Your task to perform on an android device: open a bookmark in the chrome app Image 0: 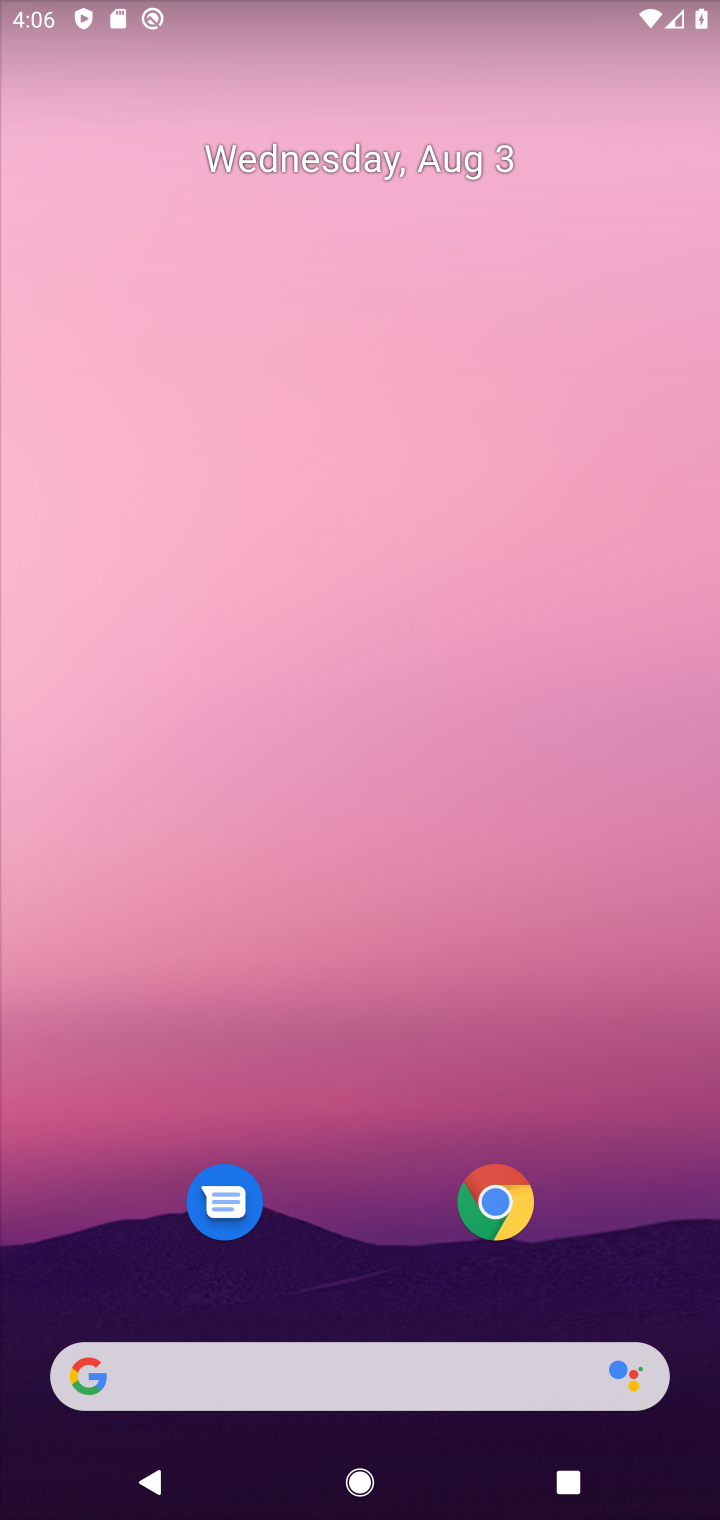
Step 0: click (491, 1175)
Your task to perform on an android device: open a bookmark in the chrome app Image 1: 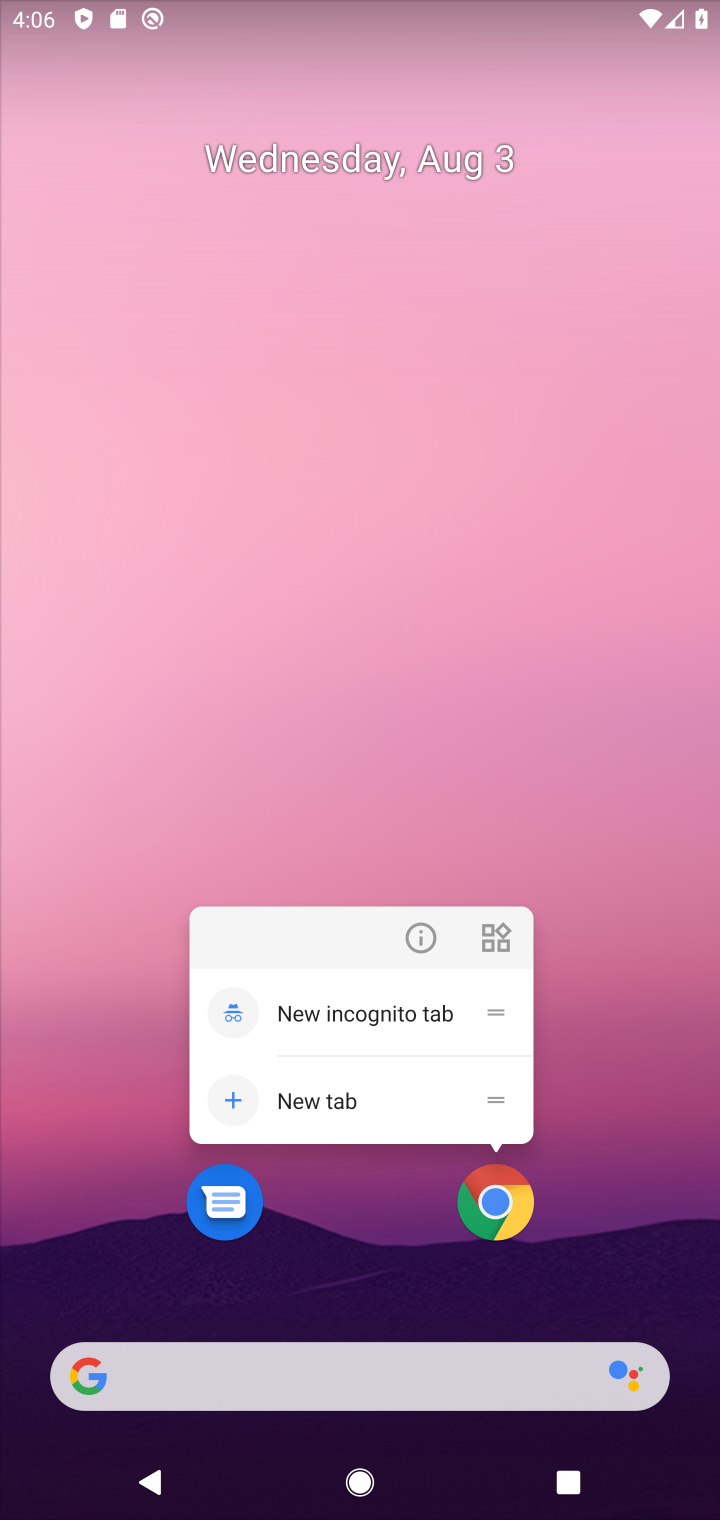
Step 1: click (504, 1184)
Your task to perform on an android device: open a bookmark in the chrome app Image 2: 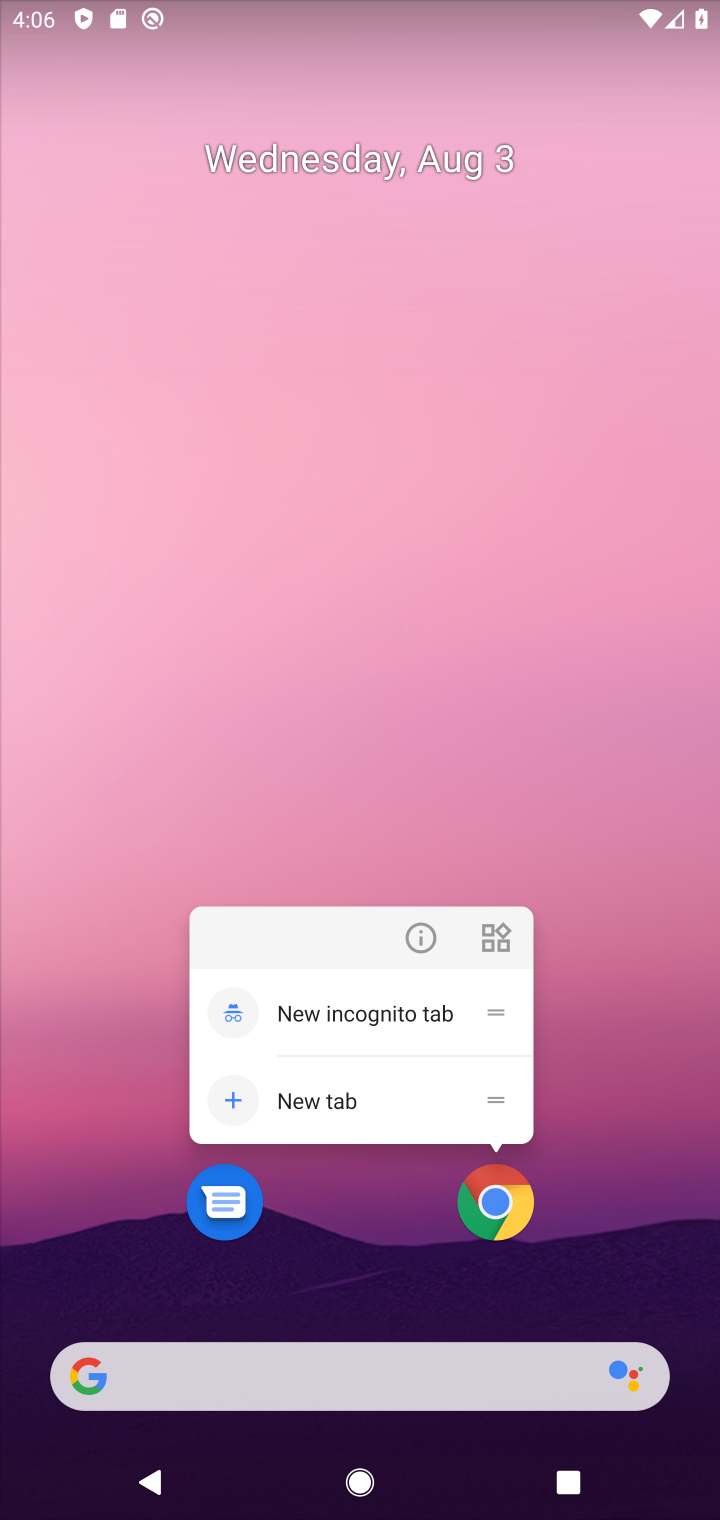
Step 2: click (498, 1207)
Your task to perform on an android device: open a bookmark in the chrome app Image 3: 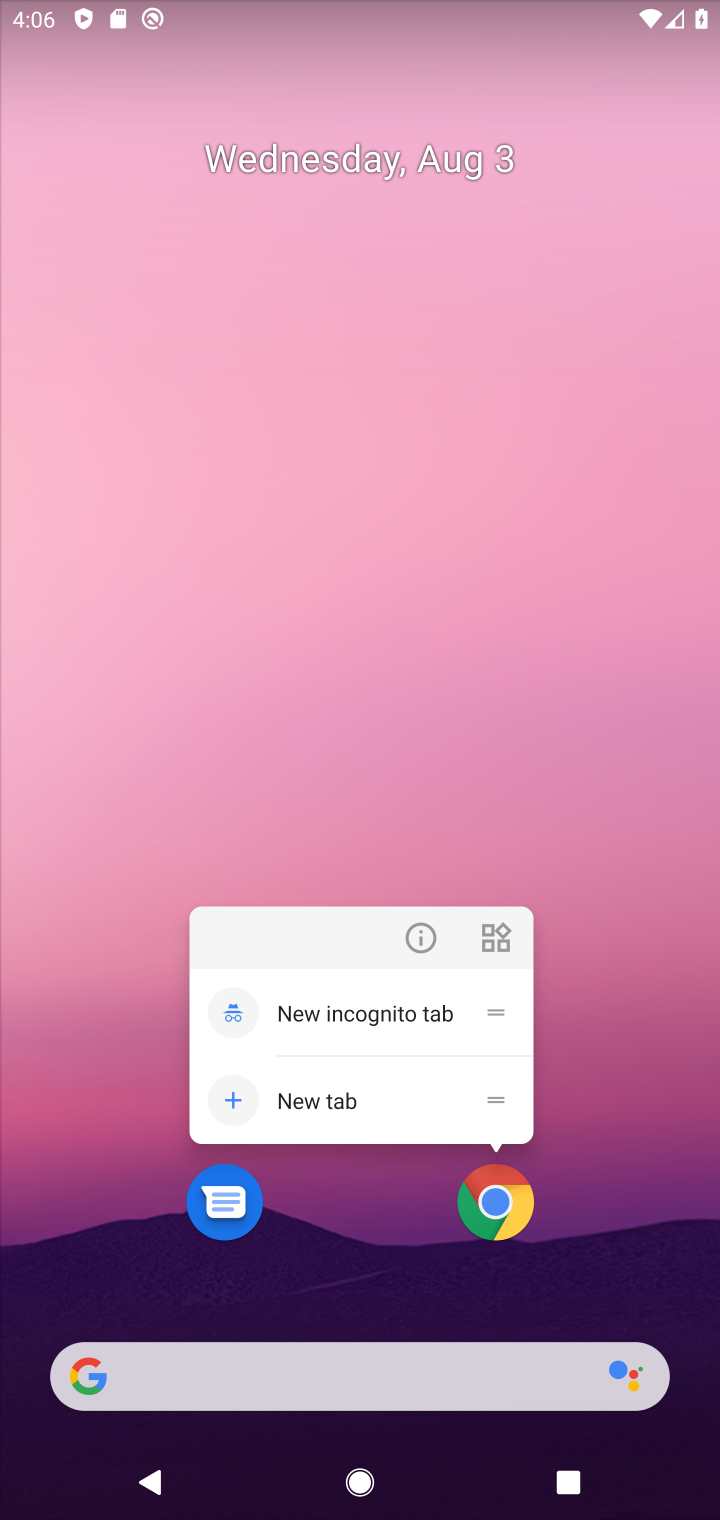
Step 3: click (509, 1204)
Your task to perform on an android device: open a bookmark in the chrome app Image 4: 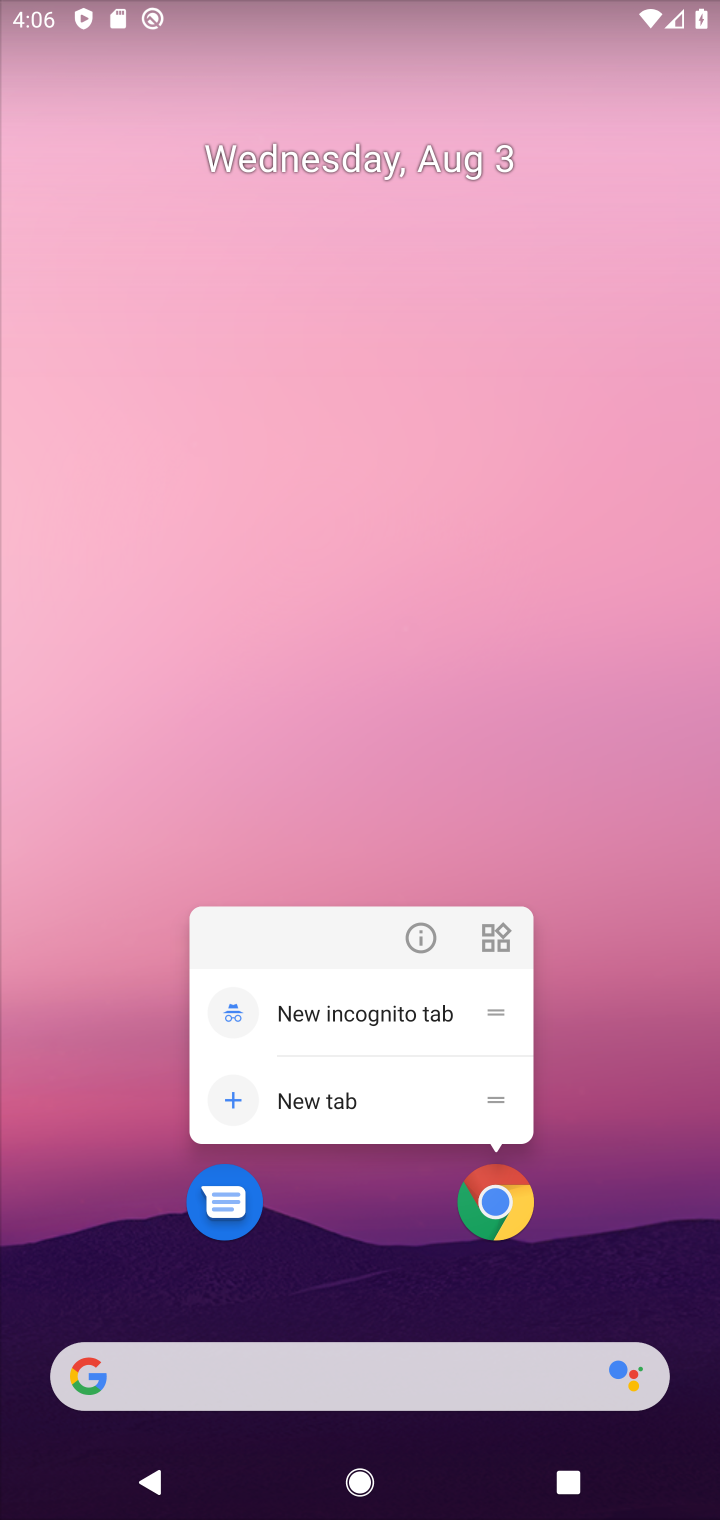
Step 4: click (499, 1189)
Your task to perform on an android device: open a bookmark in the chrome app Image 5: 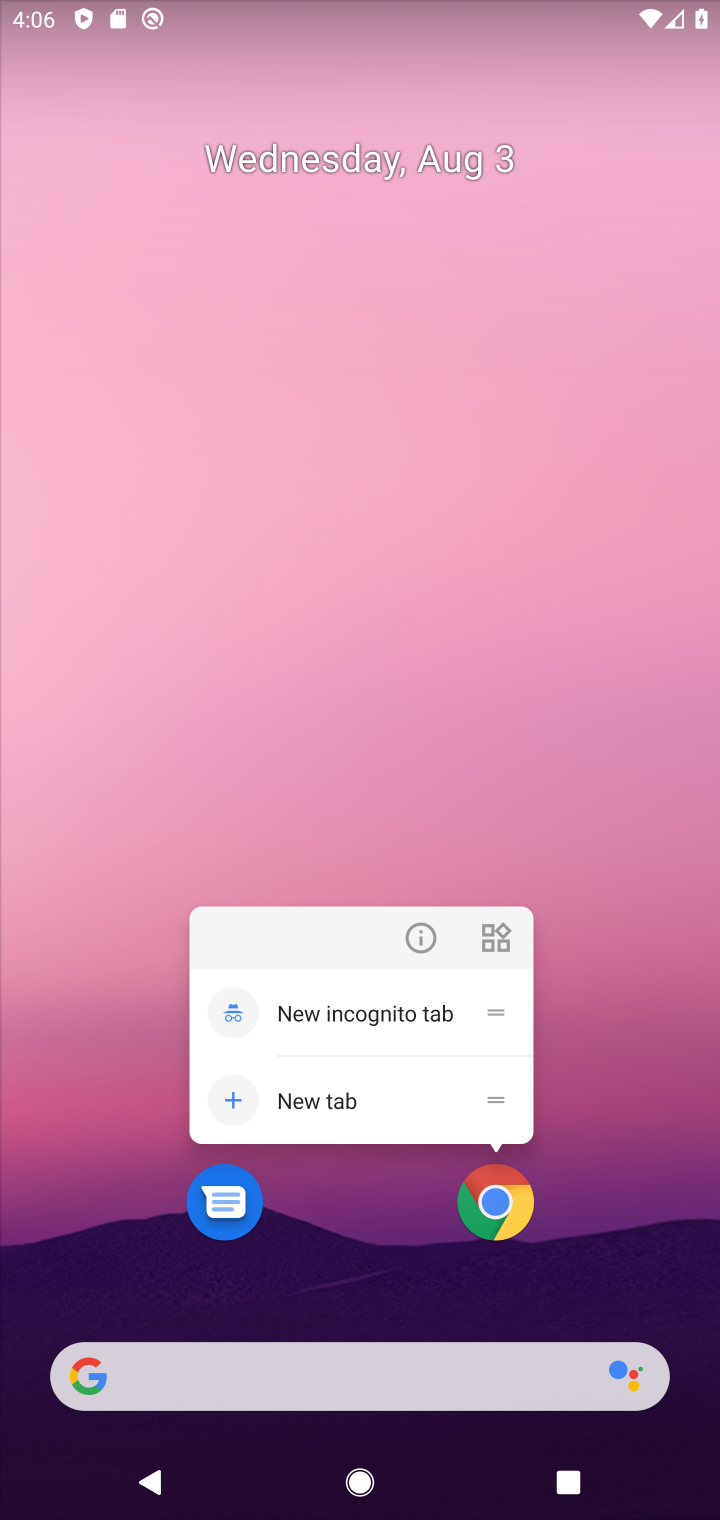
Step 5: click (523, 1189)
Your task to perform on an android device: open a bookmark in the chrome app Image 6: 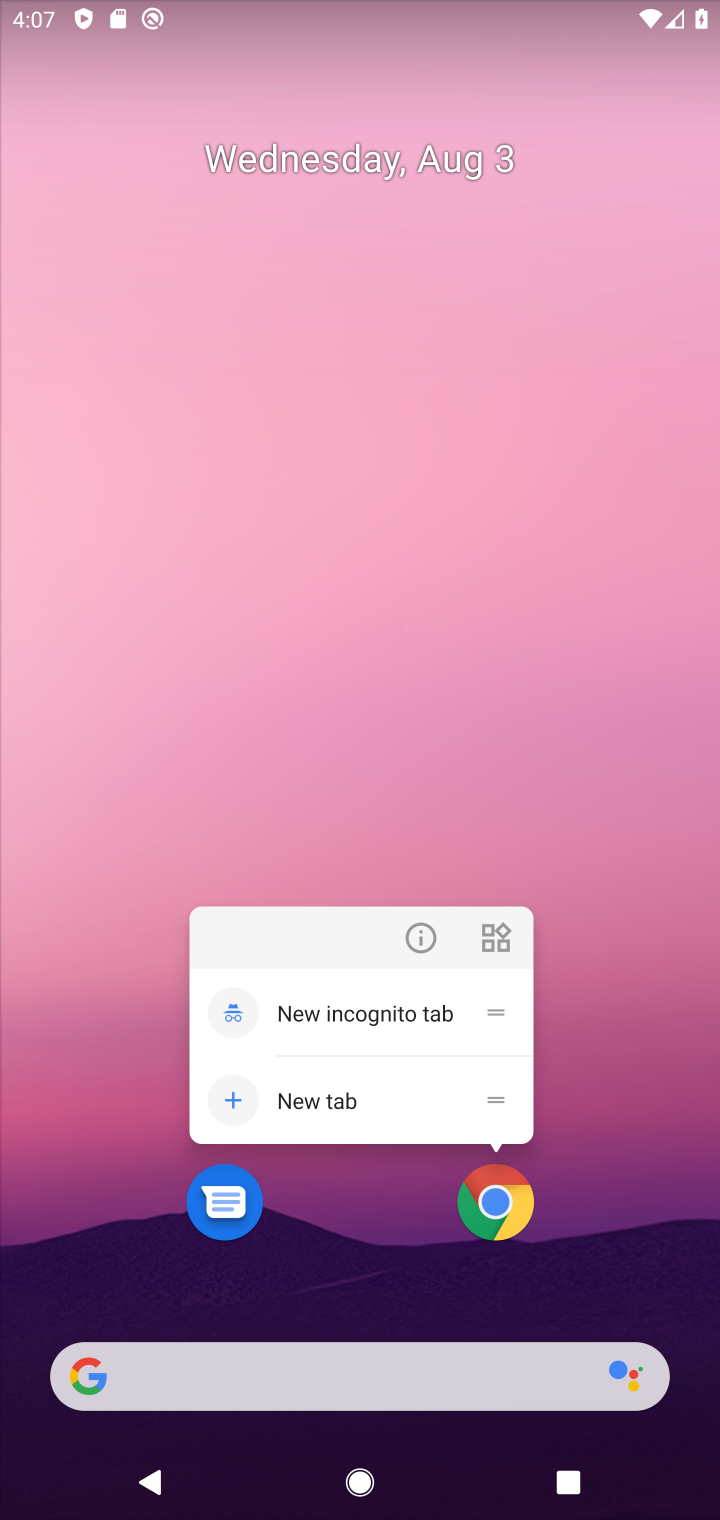
Step 6: click (508, 1199)
Your task to perform on an android device: open a bookmark in the chrome app Image 7: 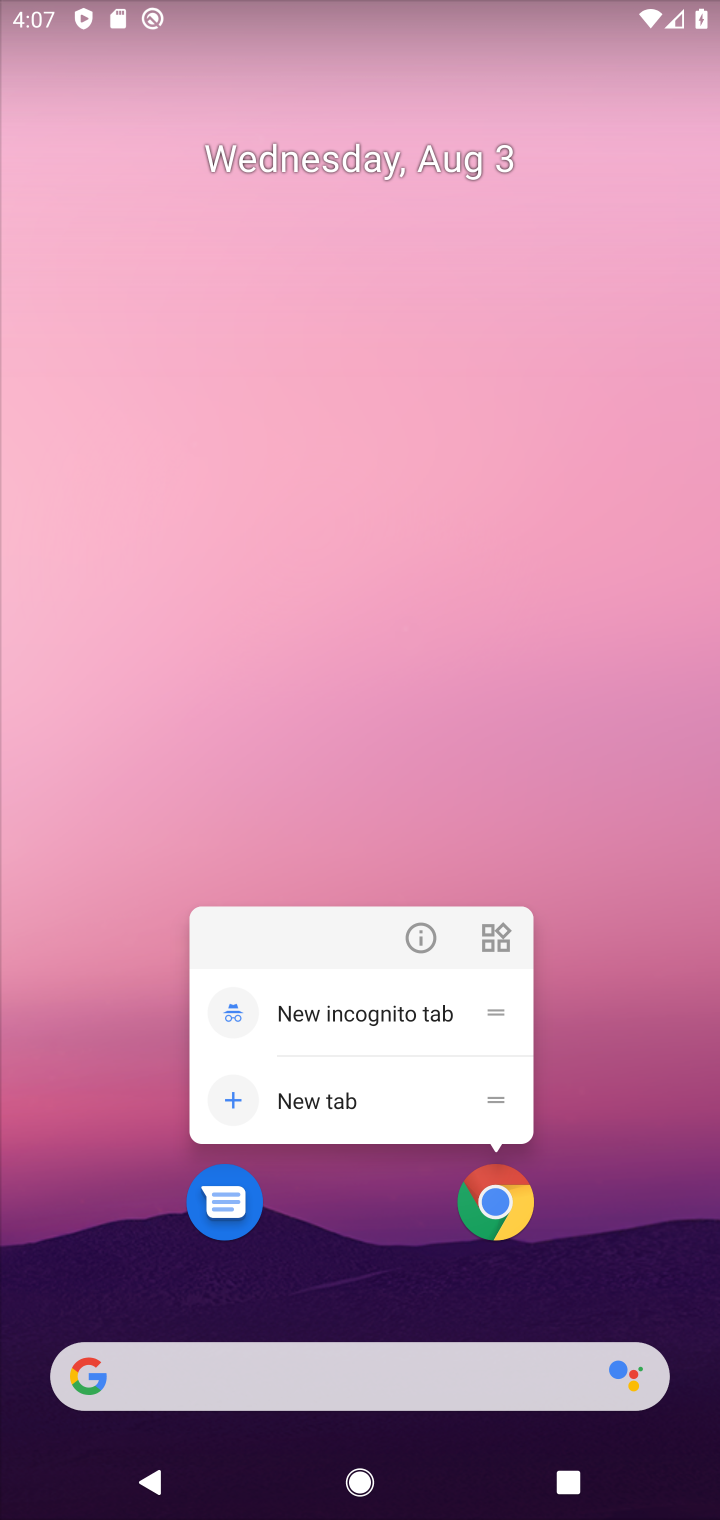
Step 7: click (528, 1191)
Your task to perform on an android device: open a bookmark in the chrome app Image 8: 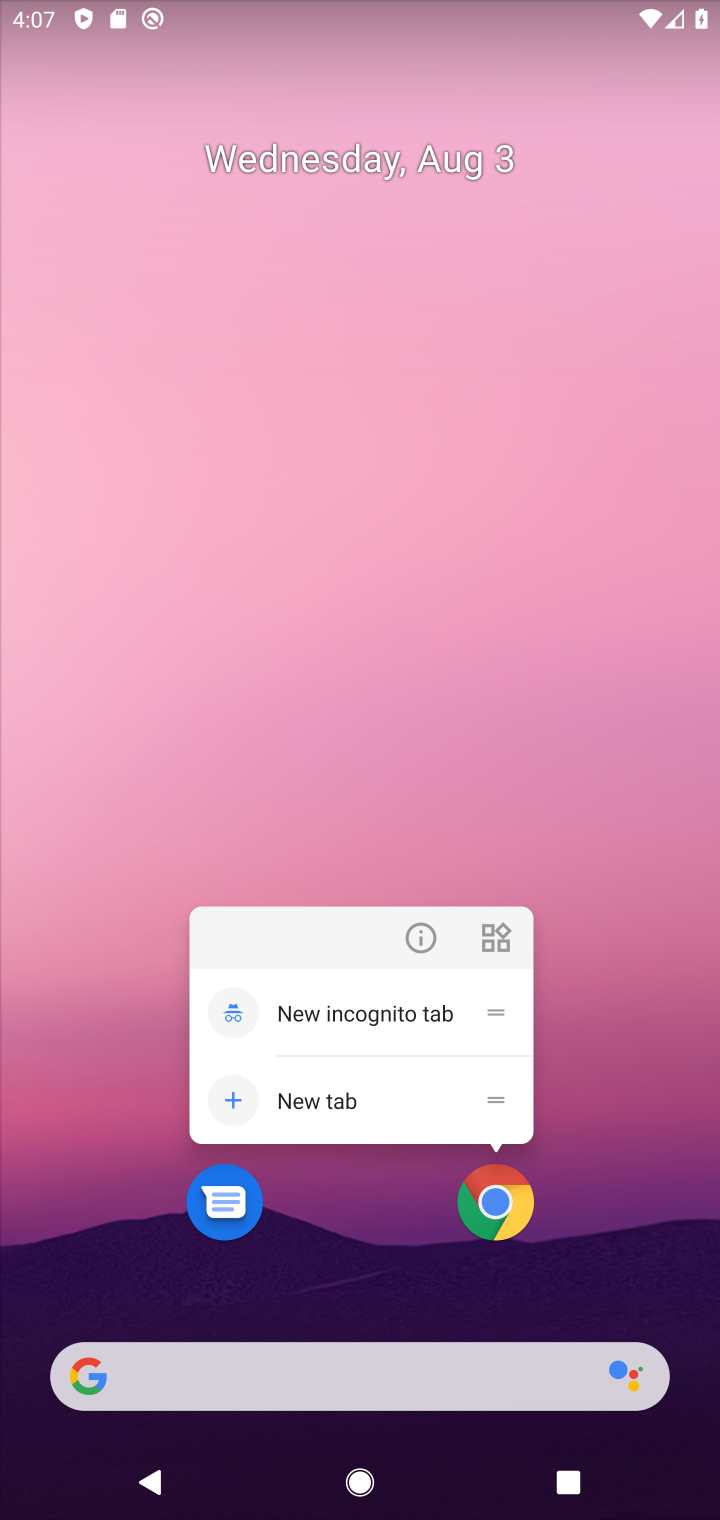
Step 8: click (489, 1189)
Your task to perform on an android device: open a bookmark in the chrome app Image 9: 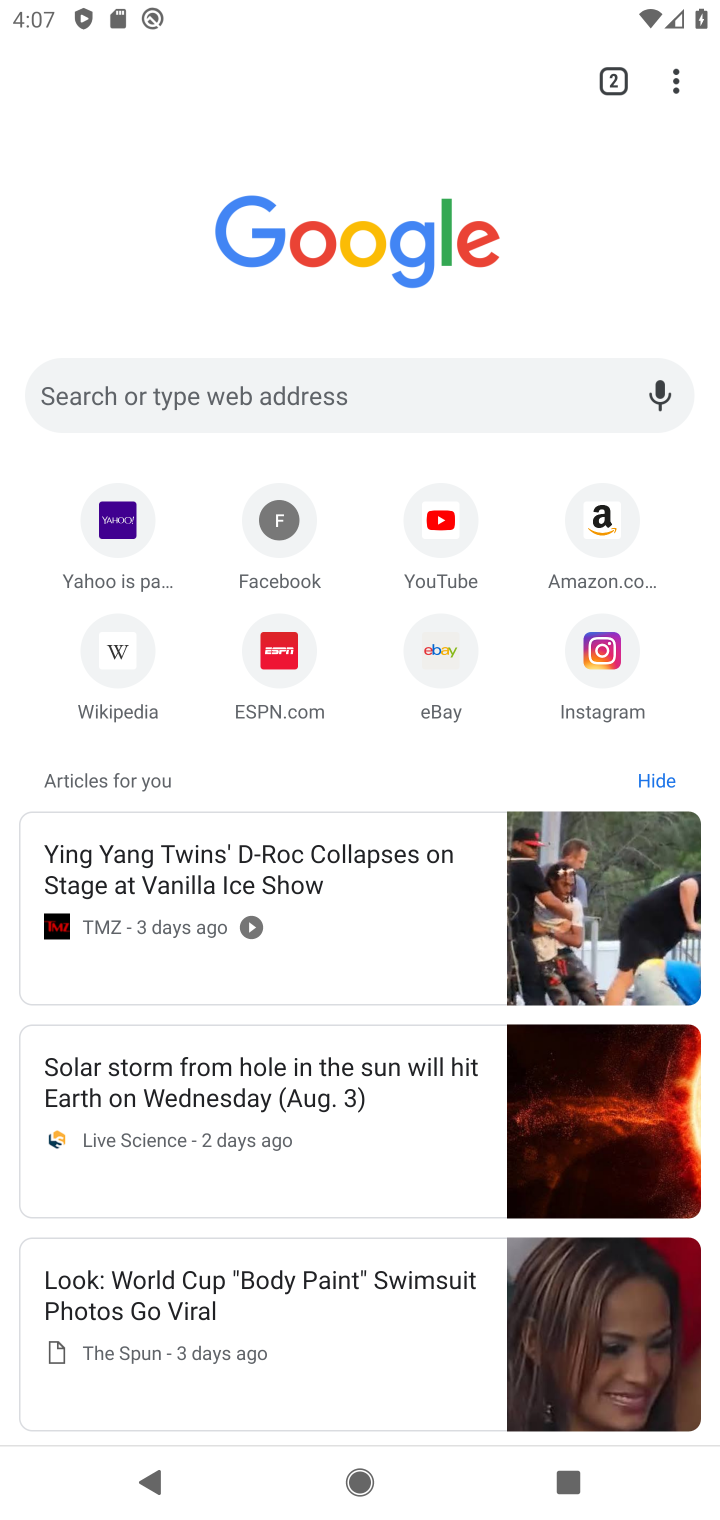
Step 9: drag from (684, 70) to (425, 301)
Your task to perform on an android device: open a bookmark in the chrome app Image 10: 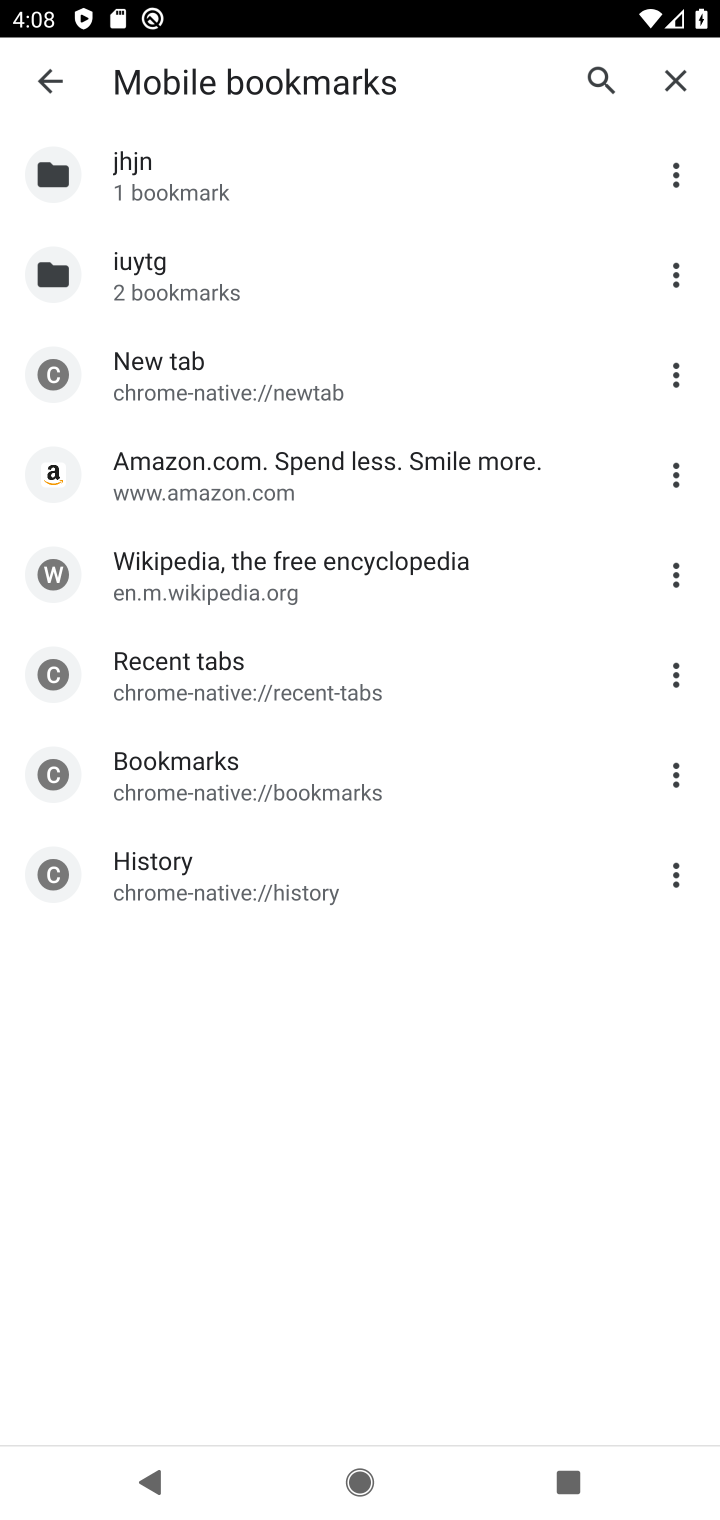
Step 10: click (222, 470)
Your task to perform on an android device: open a bookmark in the chrome app Image 11: 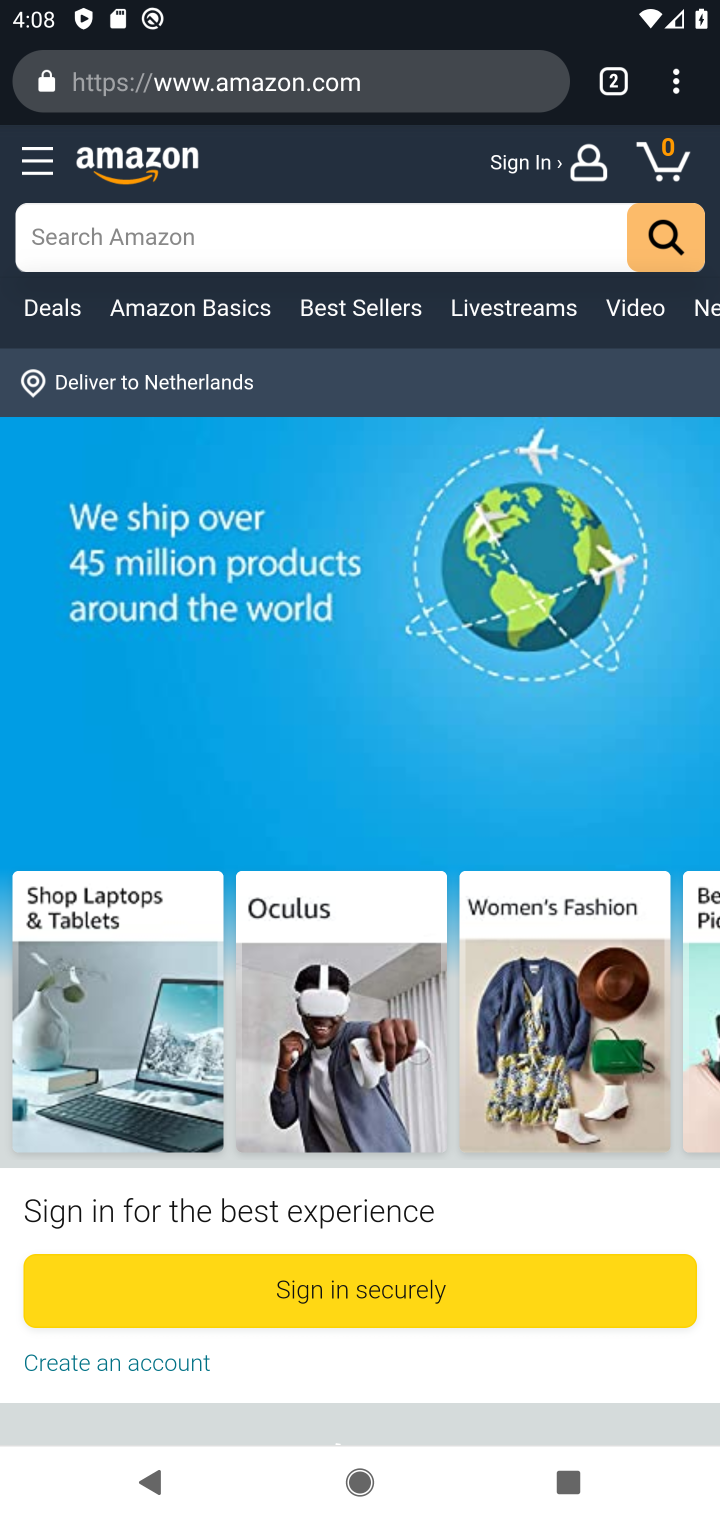
Step 11: task complete